Your task to perform on an android device: Open Google Chrome and click the shortcut for Amazon.com Image 0: 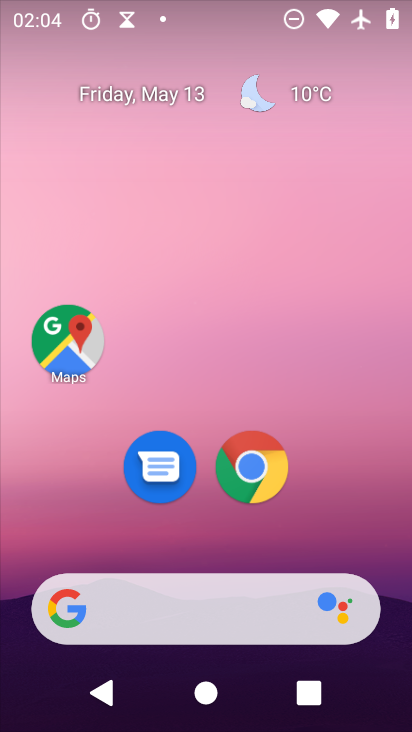
Step 0: click (251, 459)
Your task to perform on an android device: Open Google Chrome and click the shortcut for Amazon.com Image 1: 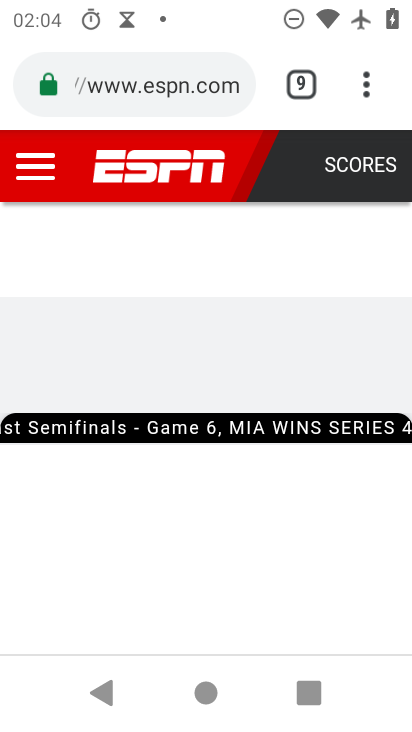
Step 1: click (302, 76)
Your task to perform on an android device: Open Google Chrome and click the shortcut for Amazon.com Image 2: 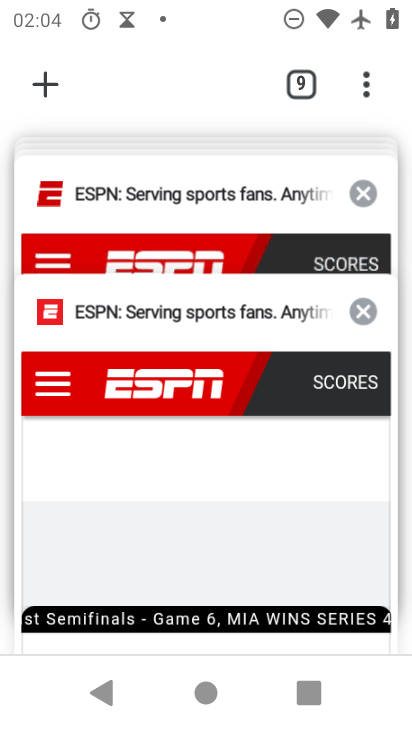
Step 2: click (38, 94)
Your task to perform on an android device: Open Google Chrome and click the shortcut for Amazon.com Image 3: 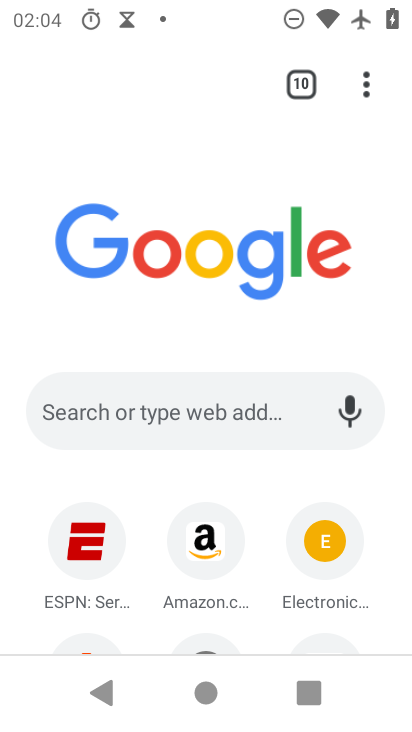
Step 3: click (205, 536)
Your task to perform on an android device: Open Google Chrome and click the shortcut for Amazon.com Image 4: 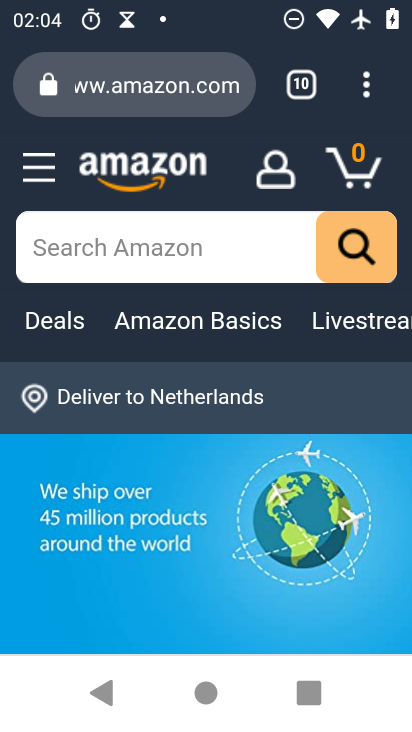
Step 4: task complete